Your task to perform on an android device: change timer sound Image 0: 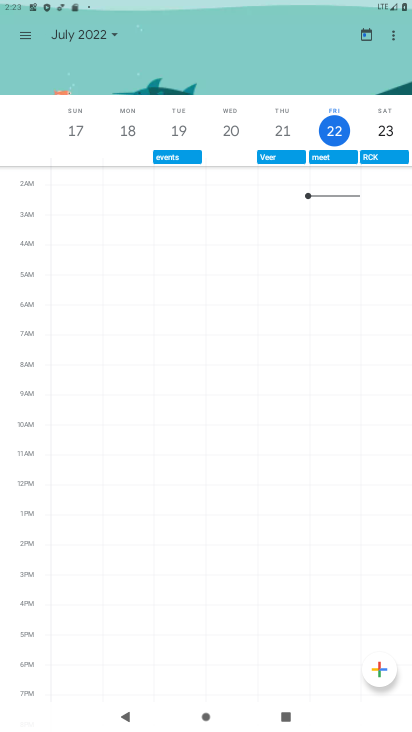
Step 0: press home button
Your task to perform on an android device: change timer sound Image 1: 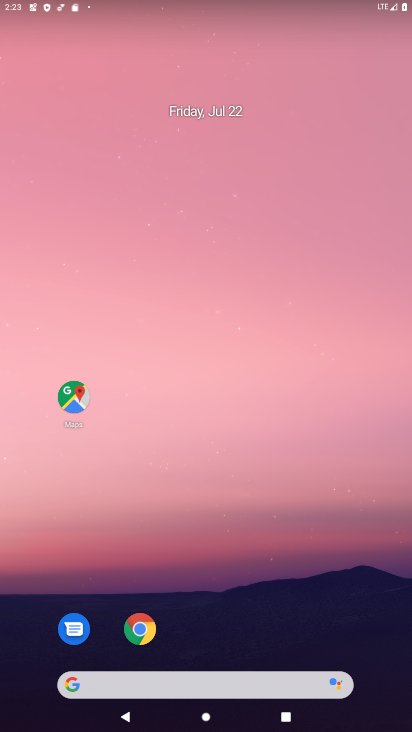
Step 1: drag from (207, 670) to (132, 16)
Your task to perform on an android device: change timer sound Image 2: 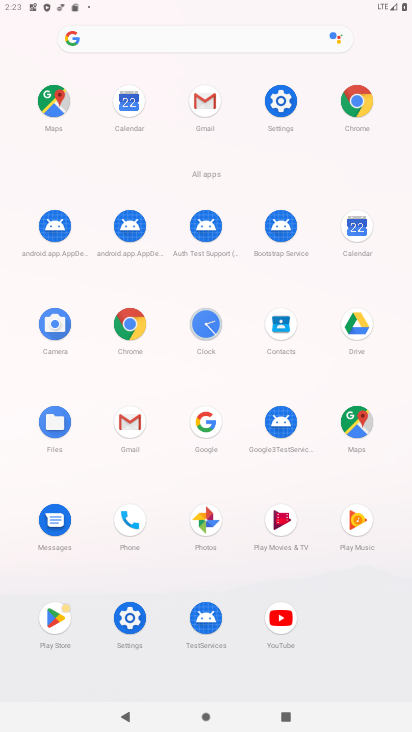
Step 2: click (209, 353)
Your task to perform on an android device: change timer sound Image 3: 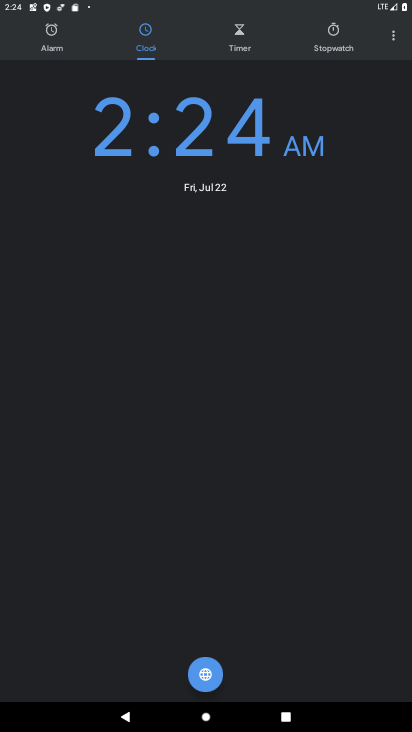
Step 3: click (391, 38)
Your task to perform on an android device: change timer sound Image 4: 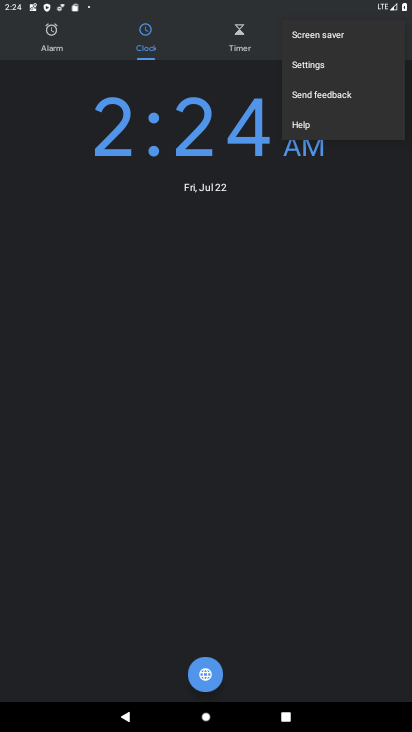
Step 4: click (316, 62)
Your task to perform on an android device: change timer sound Image 5: 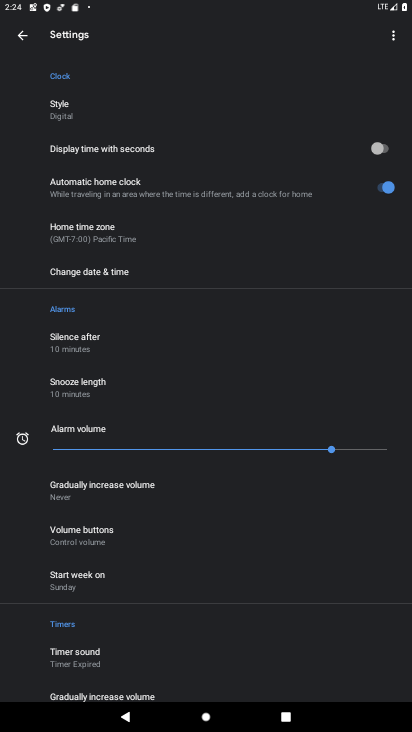
Step 5: click (81, 666)
Your task to perform on an android device: change timer sound Image 6: 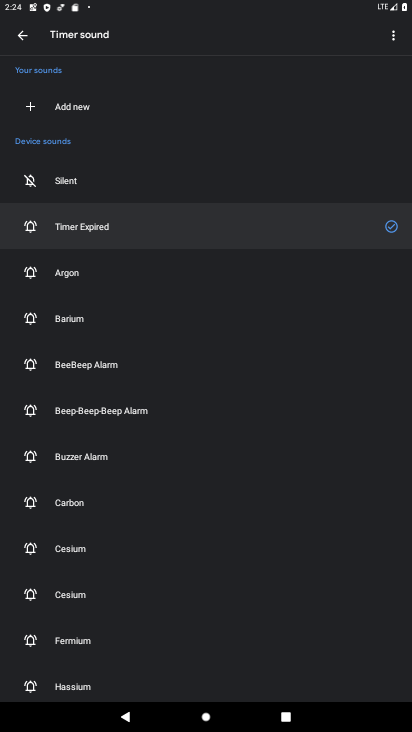
Step 6: click (86, 479)
Your task to perform on an android device: change timer sound Image 7: 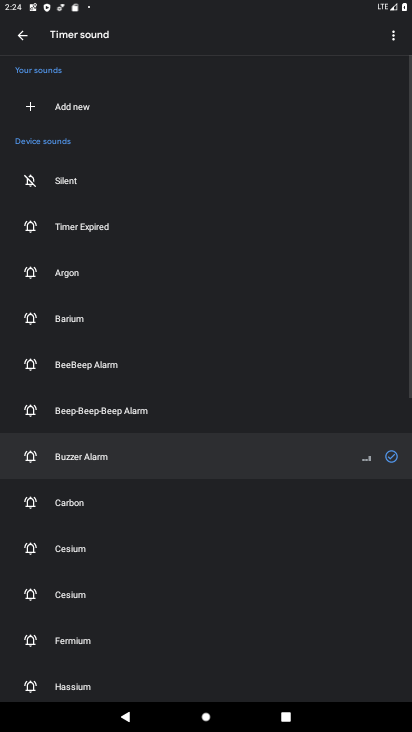
Step 7: task complete